Your task to perform on an android device: turn on data saver in the chrome app Image 0: 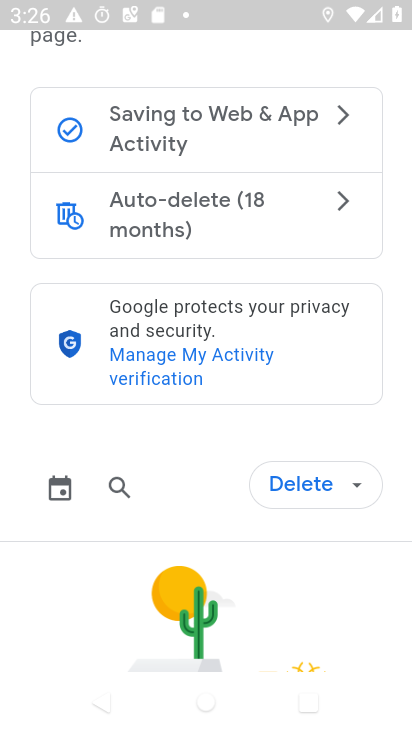
Step 0: press home button
Your task to perform on an android device: turn on data saver in the chrome app Image 1: 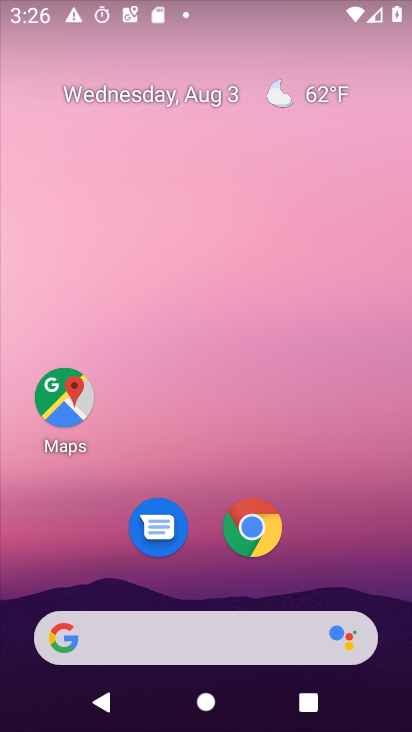
Step 1: drag from (348, 538) to (300, 38)
Your task to perform on an android device: turn on data saver in the chrome app Image 2: 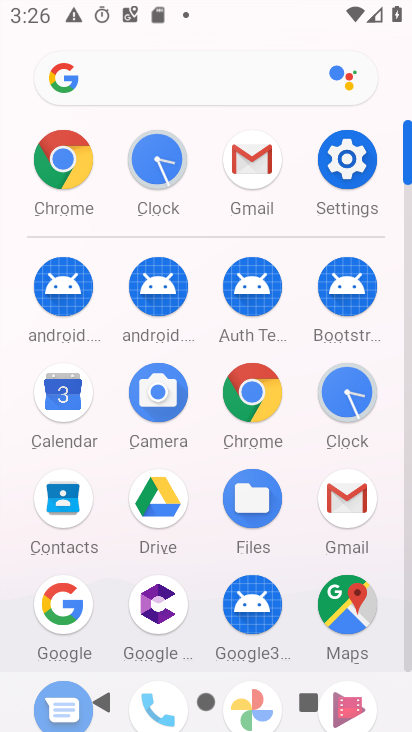
Step 2: click (249, 386)
Your task to perform on an android device: turn on data saver in the chrome app Image 3: 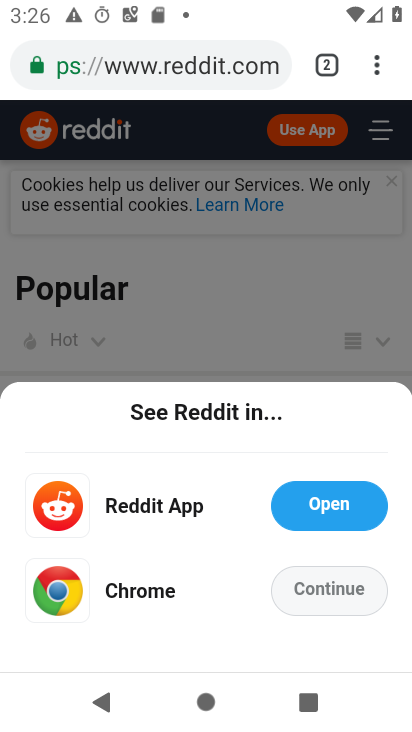
Step 3: drag from (382, 60) to (244, 581)
Your task to perform on an android device: turn on data saver in the chrome app Image 4: 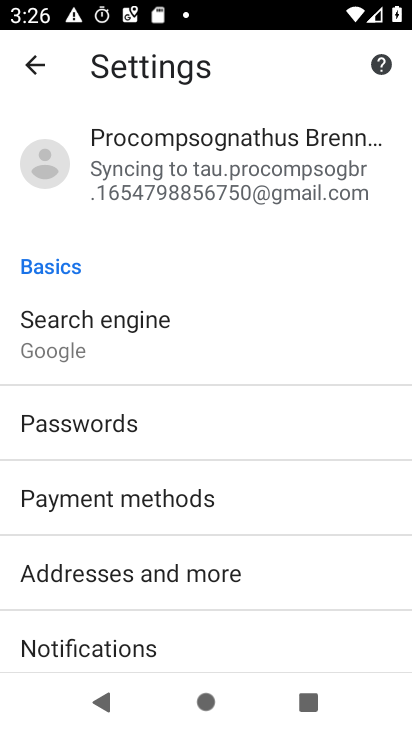
Step 4: drag from (336, 565) to (314, 116)
Your task to perform on an android device: turn on data saver in the chrome app Image 5: 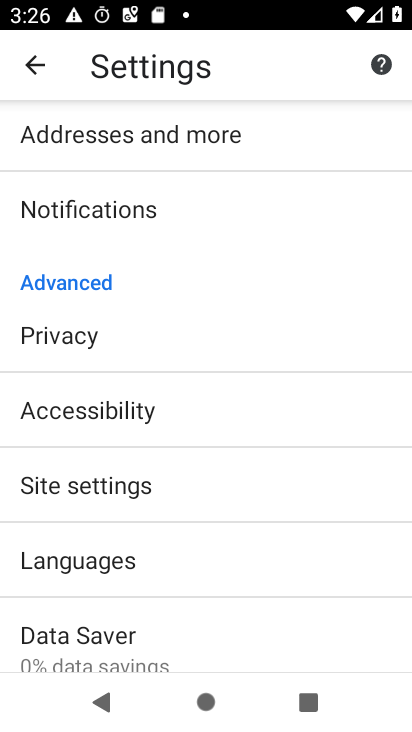
Step 5: click (117, 625)
Your task to perform on an android device: turn on data saver in the chrome app Image 6: 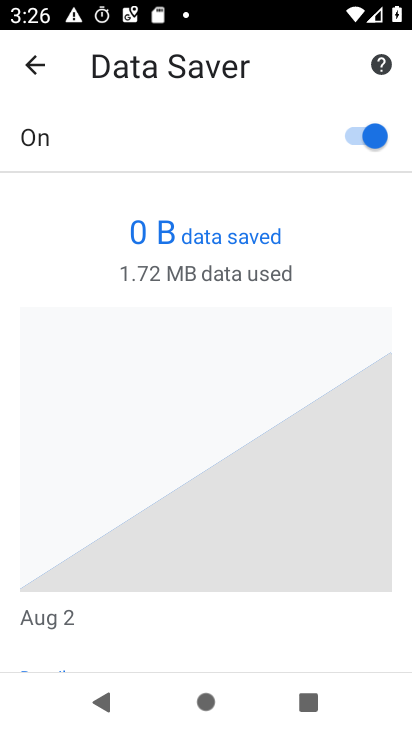
Step 6: task complete